Your task to perform on an android device: Play the last video I watched on Youtube Image 0: 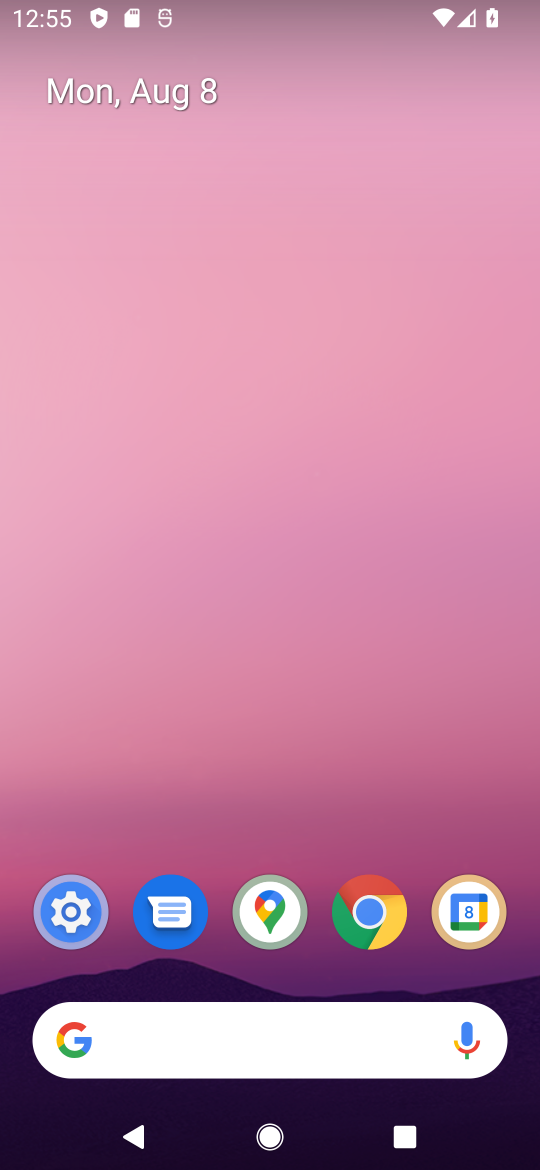
Step 0: drag from (251, 983) to (407, 8)
Your task to perform on an android device: Play the last video I watched on Youtube Image 1: 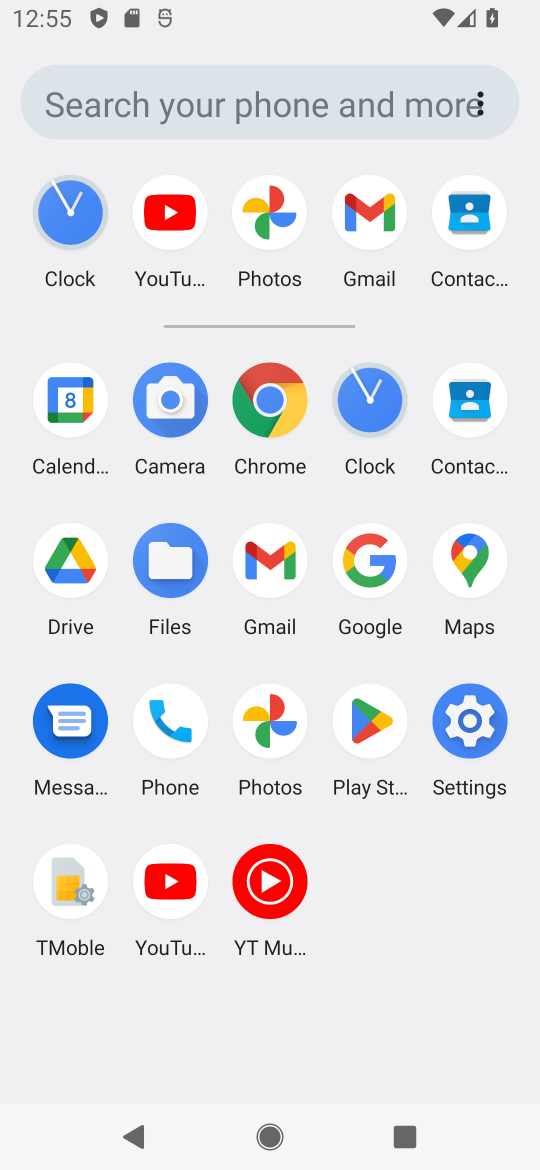
Step 1: click (175, 887)
Your task to perform on an android device: Play the last video I watched on Youtube Image 2: 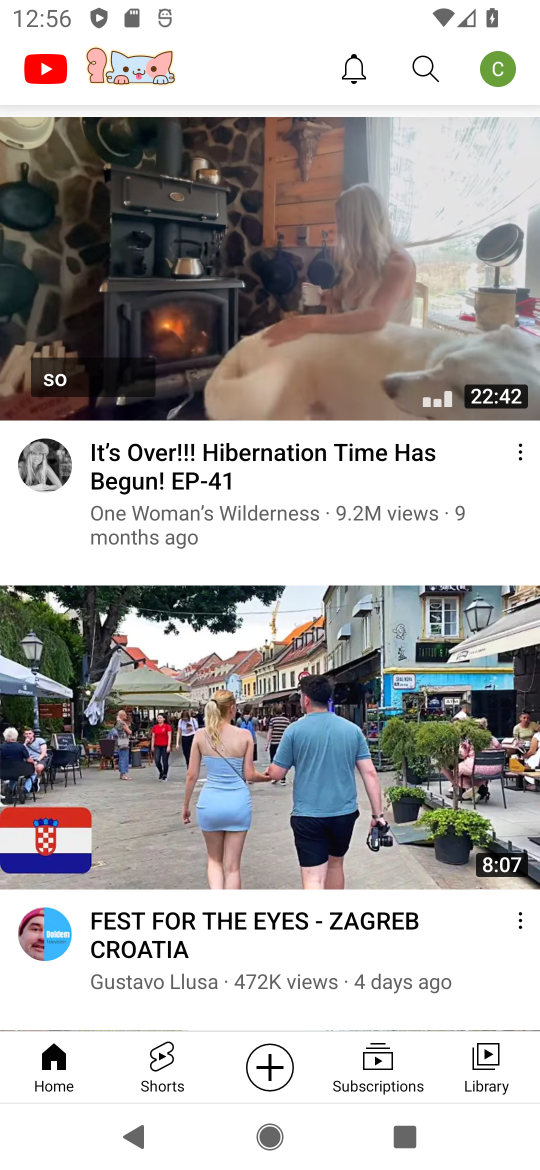
Step 2: click (493, 1059)
Your task to perform on an android device: Play the last video I watched on Youtube Image 3: 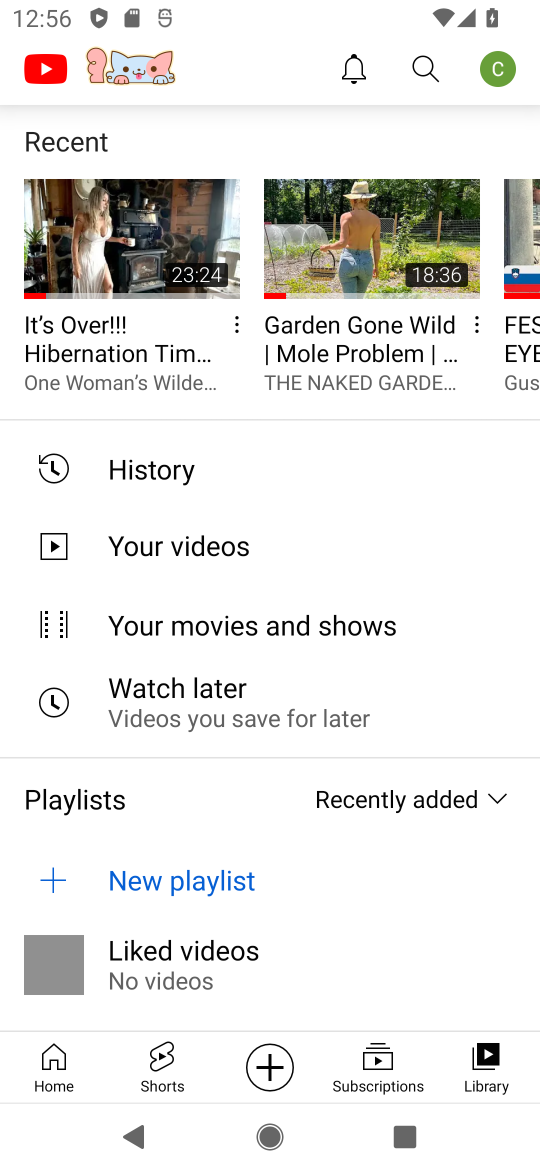
Step 3: click (137, 261)
Your task to perform on an android device: Play the last video I watched on Youtube Image 4: 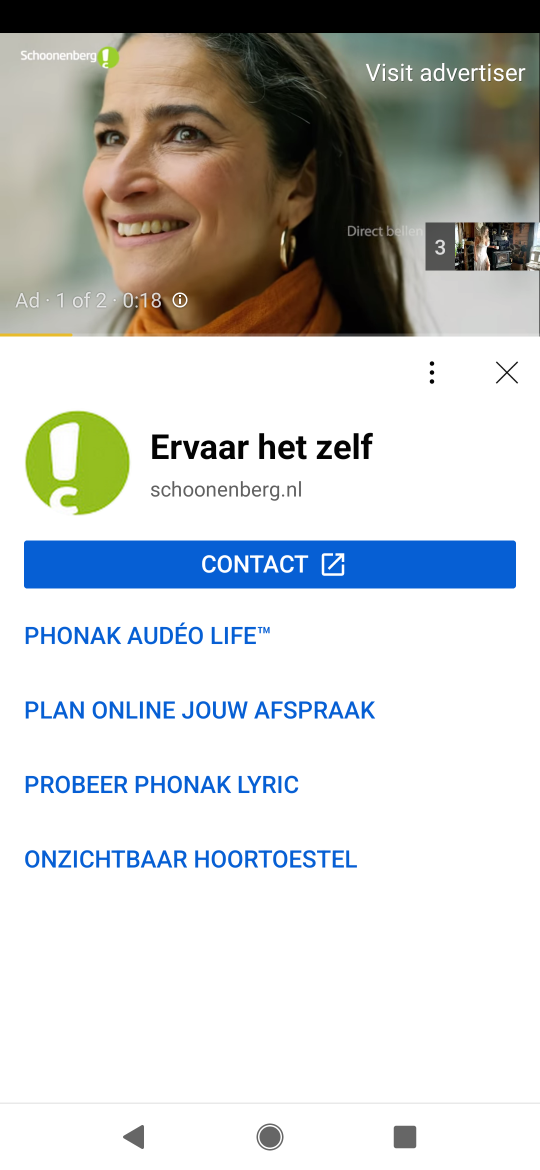
Step 4: click (264, 173)
Your task to perform on an android device: Play the last video I watched on Youtube Image 5: 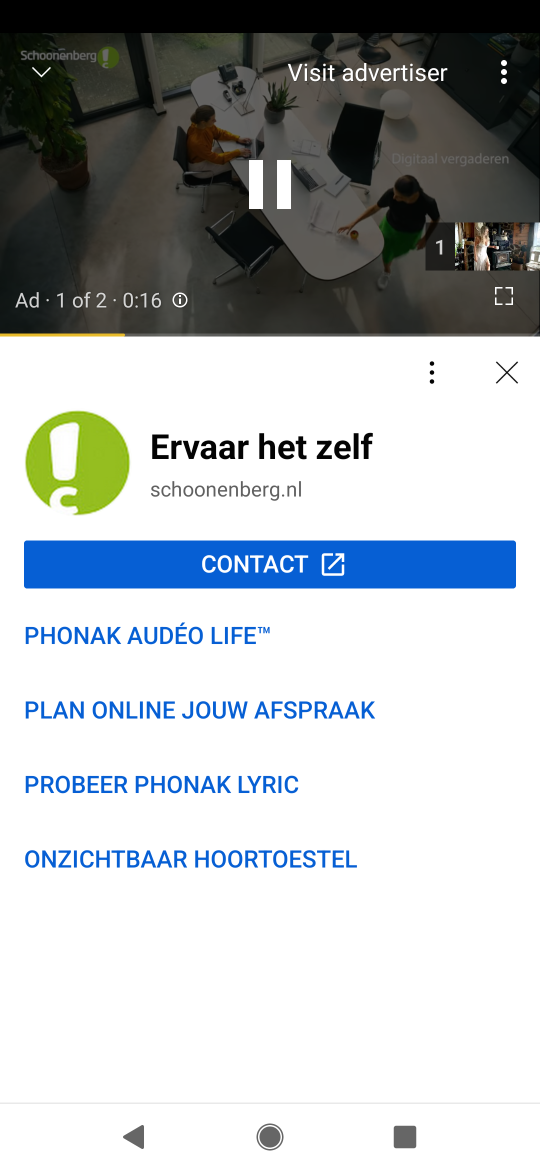
Step 5: click (278, 171)
Your task to perform on an android device: Play the last video I watched on Youtube Image 6: 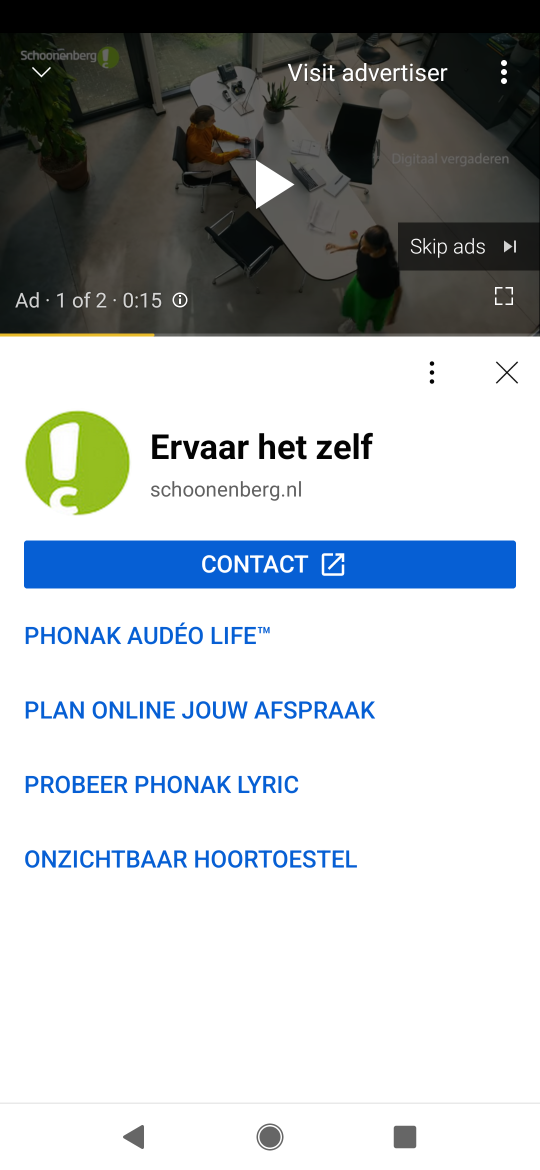
Step 6: click (403, 227)
Your task to perform on an android device: Play the last video I watched on Youtube Image 7: 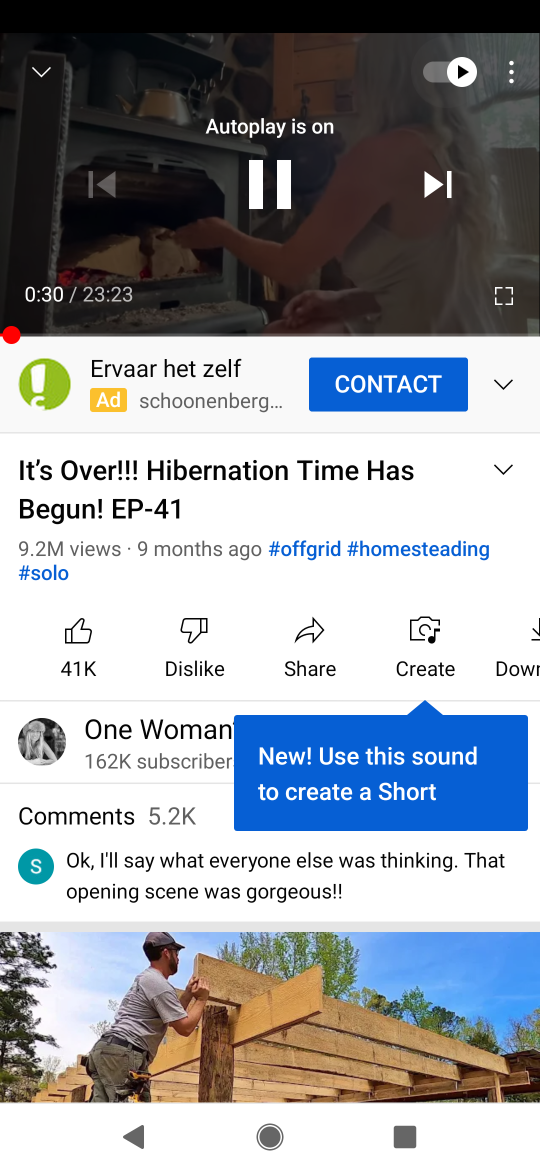
Step 7: click (302, 175)
Your task to perform on an android device: Play the last video I watched on Youtube Image 8: 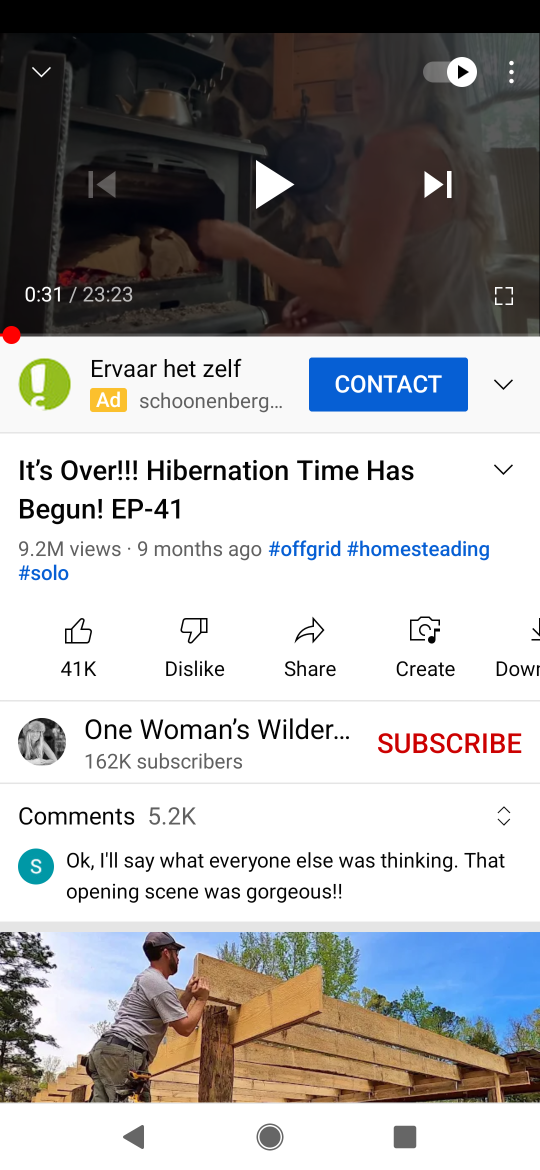
Step 8: task complete